Your task to perform on an android device: change the clock display to show seconds Image 0: 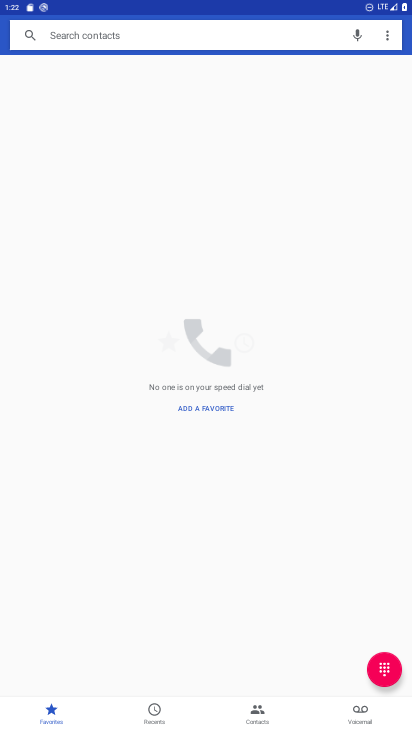
Step 0: press home button
Your task to perform on an android device: change the clock display to show seconds Image 1: 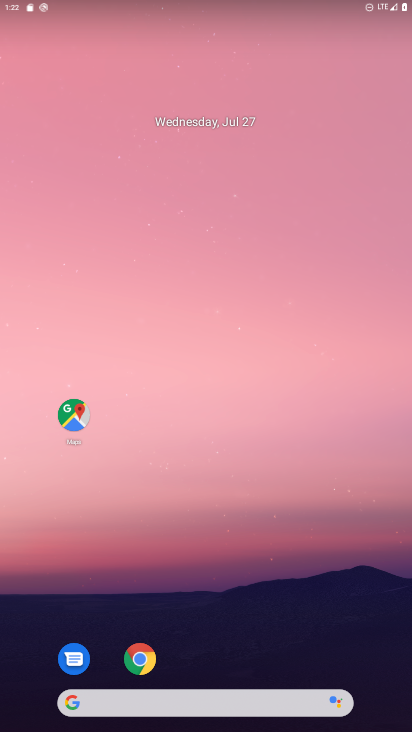
Step 1: drag from (249, 653) to (260, 158)
Your task to perform on an android device: change the clock display to show seconds Image 2: 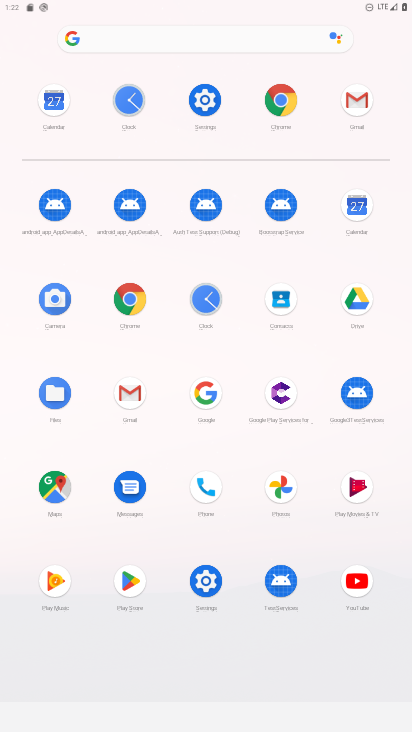
Step 2: click (218, 301)
Your task to perform on an android device: change the clock display to show seconds Image 3: 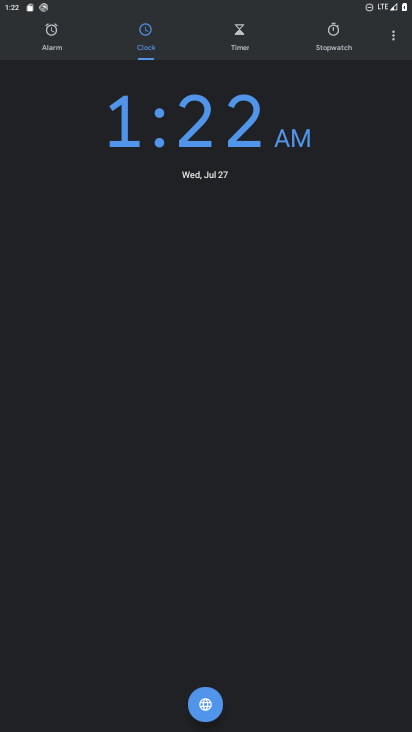
Step 3: click (390, 45)
Your task to perform on an android device: change the clock display to show seconds Image 4: 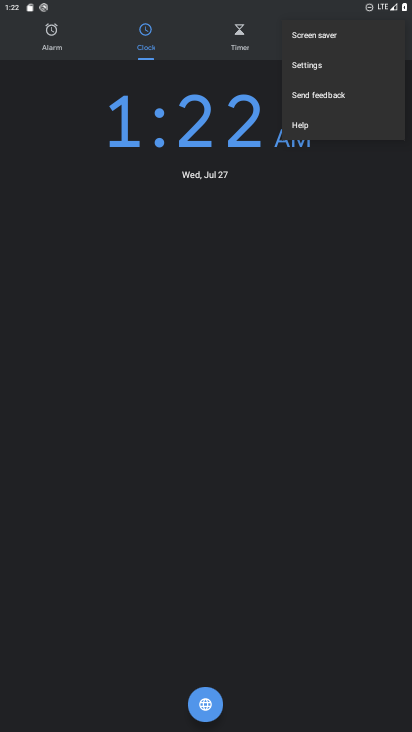
Step 4: click (333, 73)
Your task to perform on an android device: change the clock display to show seconds Image 5: 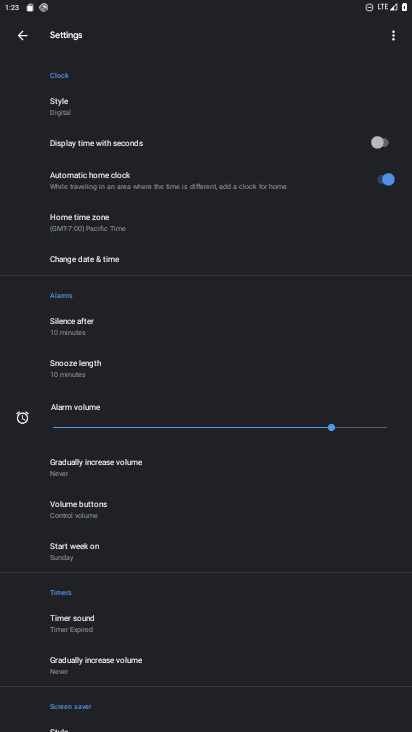
Step 5: click (272, 142)
Your task to perform on an android device: change the clock display to show seconds Image 6: 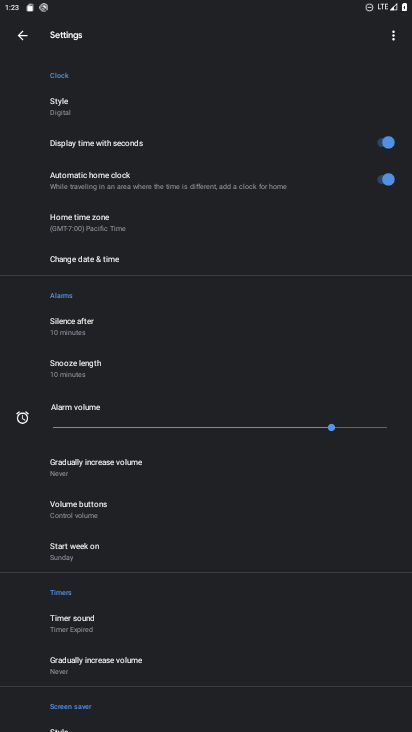
Step 6: task complete